Your task to perform on an android device: Open notification settings Image 0: 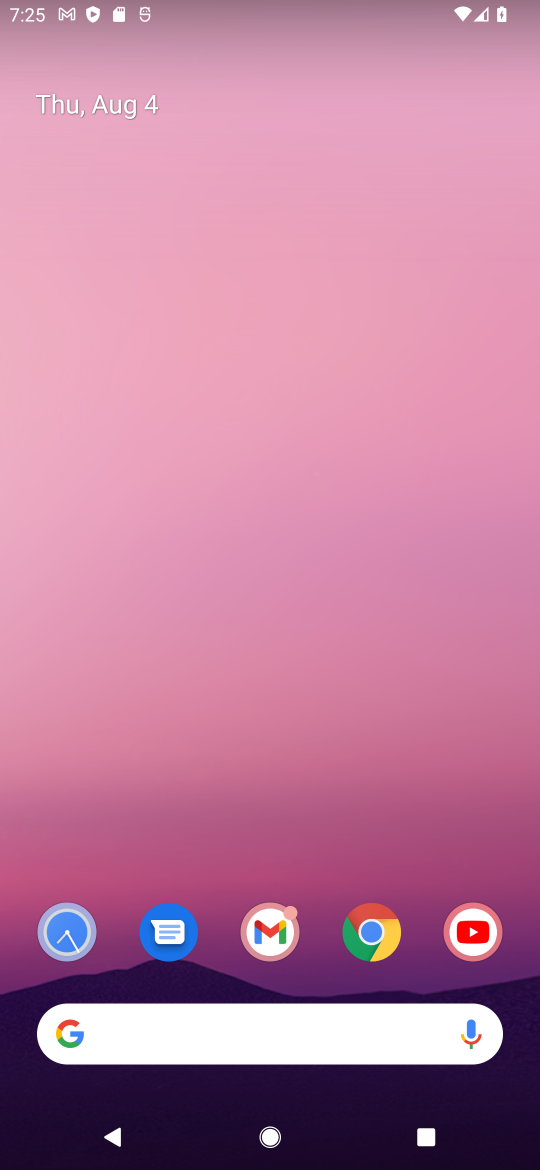
Step 0: drag from (225, 325) to (424, 35)
Your task to perform on an android device: Open notification settings Image 1: 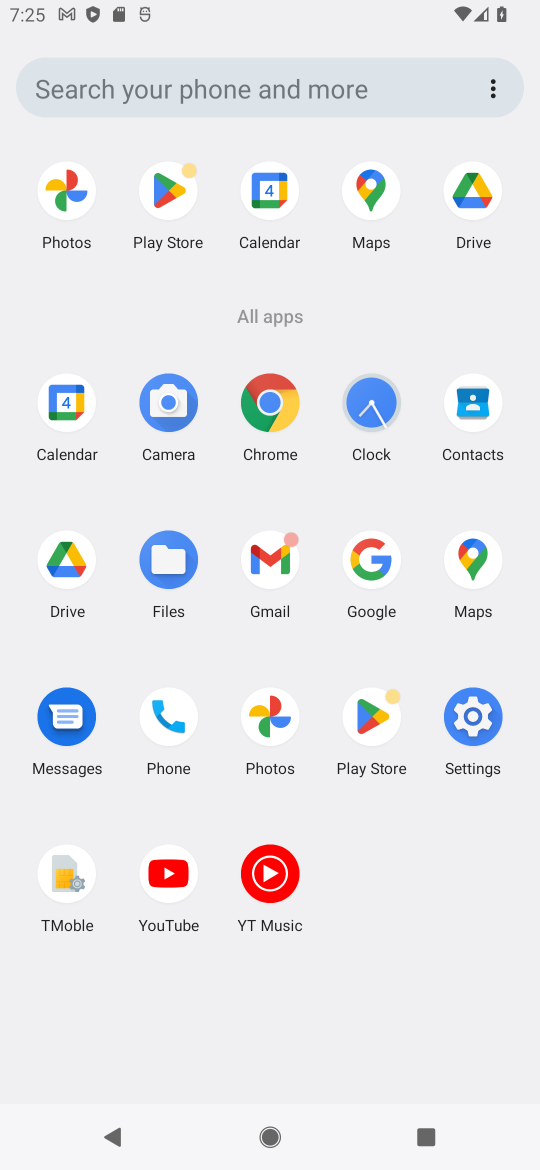
Step 1: click (454, 723)
Your task to perform on an android device: Open notification settings Image 2: 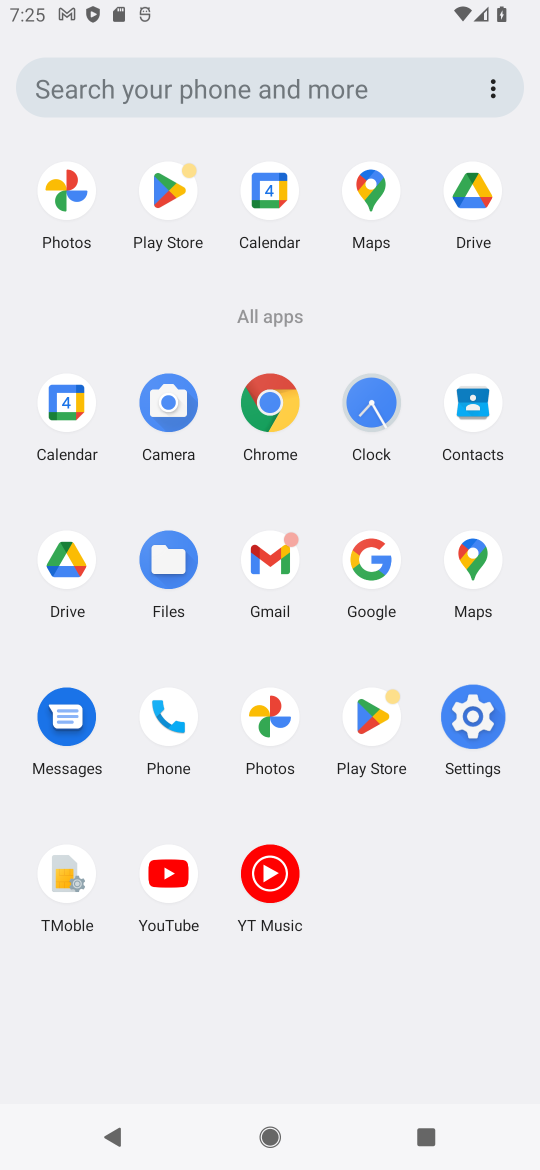
Step 2: click (454, 723)
Your task to perform on an android device: Open notification settings Image 3: 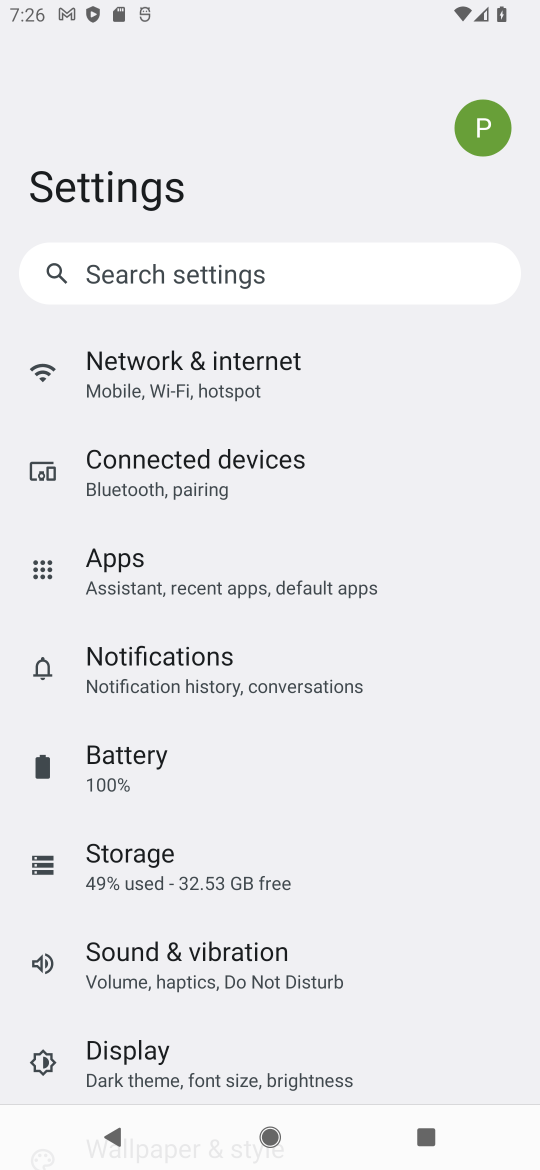
Step 3: click (134, 657)
Your task to perform on an android device: Open notification settings Image 4: 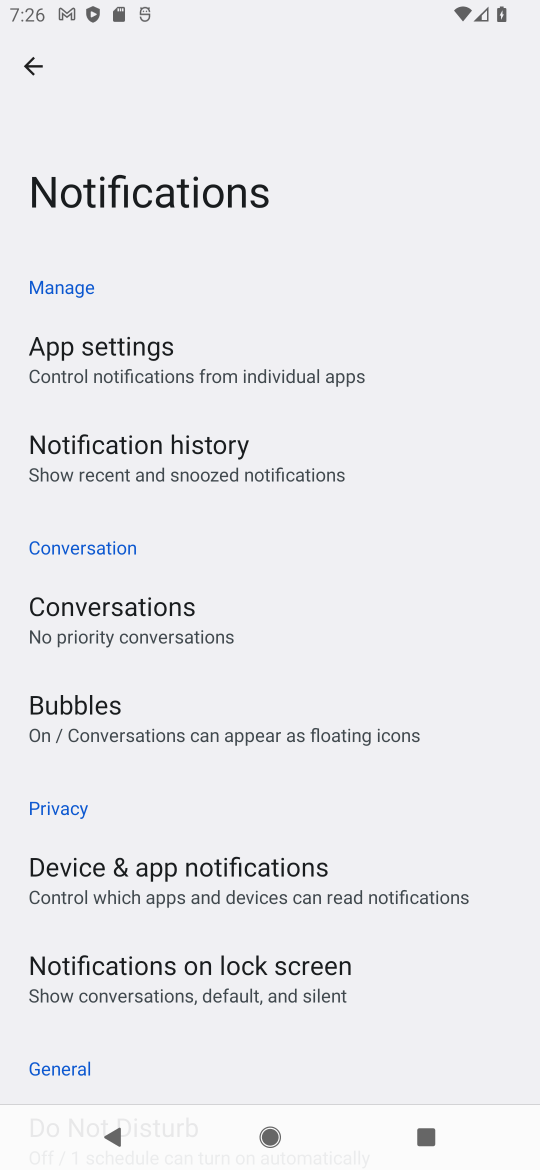
Step 4: click (169, 293)
Your task to perform on an android device: Open notification settings Image 5: 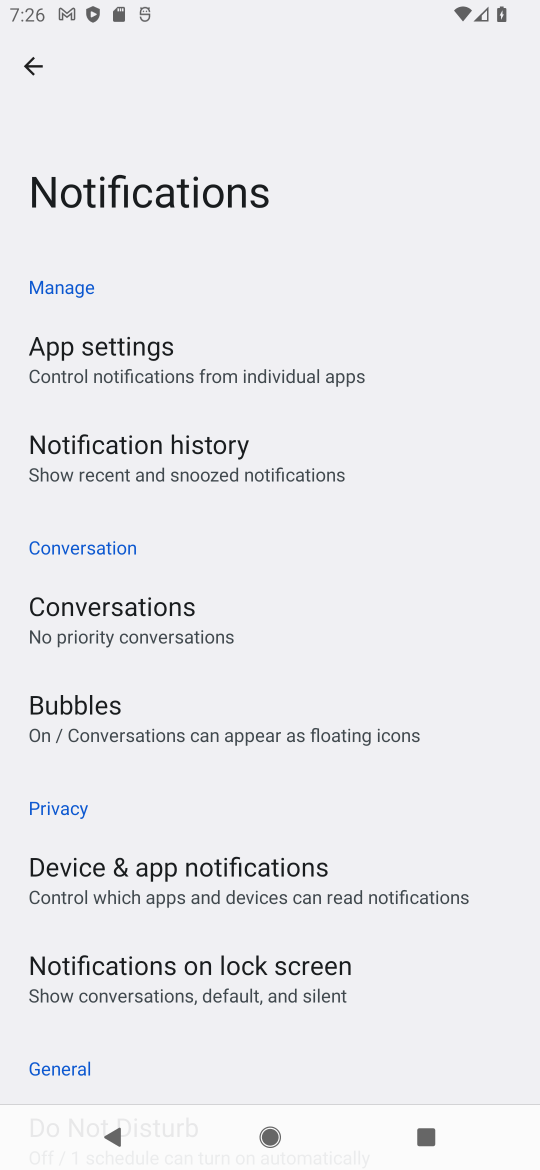
Step 5: task complete